Your task to perform on an android device: turn pop-ups on in chrome Image 0: 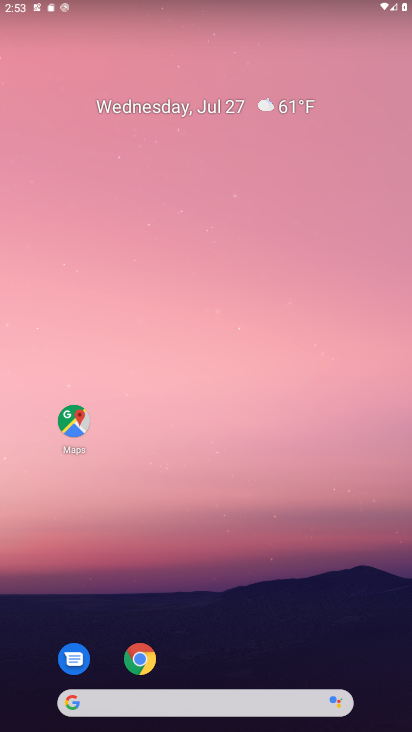
Step 0: click (147, 671)
Your task to perform on an android device: turn pop-ups on in chrome Image 1: 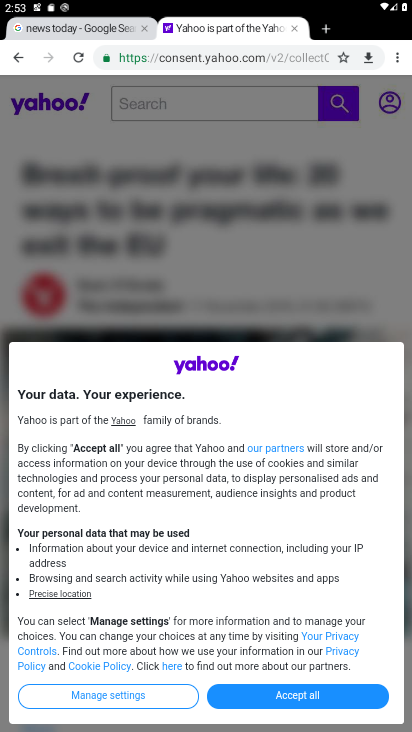
Step 1: drag from (399, 61) to (299, 379)
Your task to perform on an android device: turn pop-ups on in chrome Image 2: 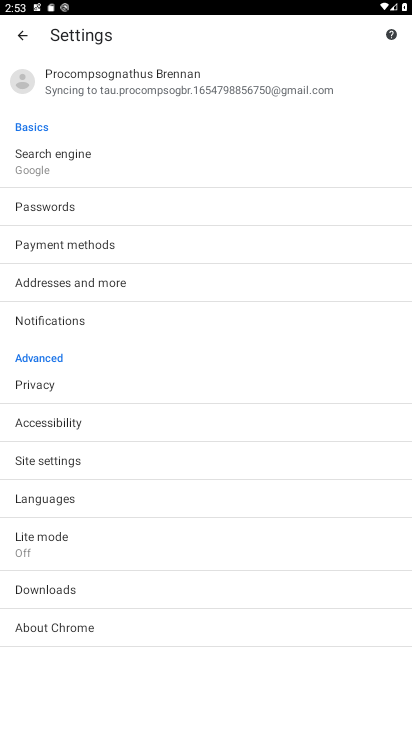
Step 2: click (81, 459)
Your task to perform on an android device: turn pop-ups on in chrome Image 3: 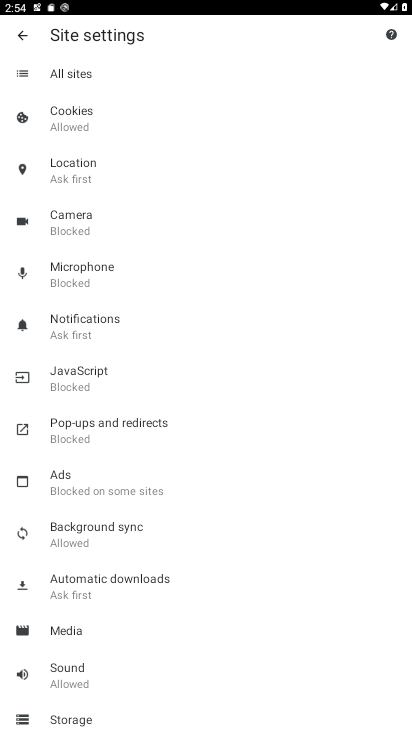
Step 3: click (98, 429)
Your task to perform on an android device: turn pop-ups on in chrome Image 4: 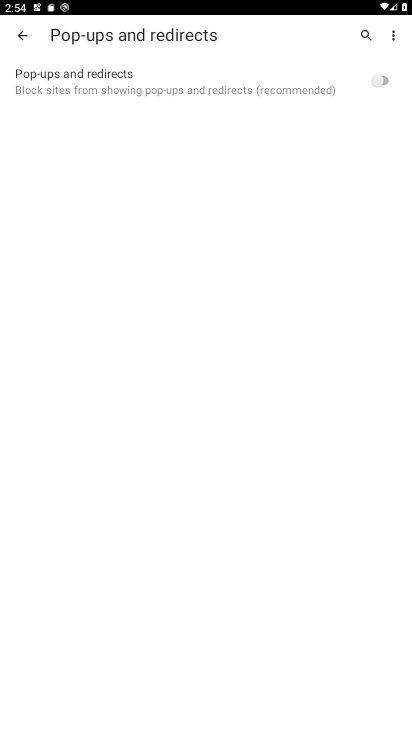
Step 4: click (386, 82)
Your task to perform on an android device: turn pop-ups on in chrome Image 5: 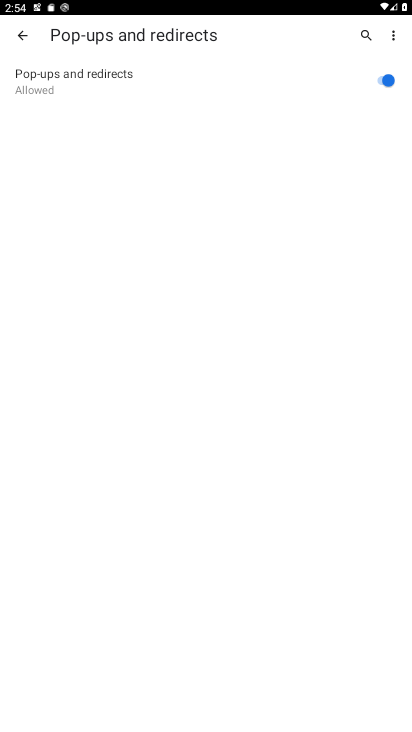
Step 5: task complete